Your task to perform on an android device: Open accessibility settings Image 0: 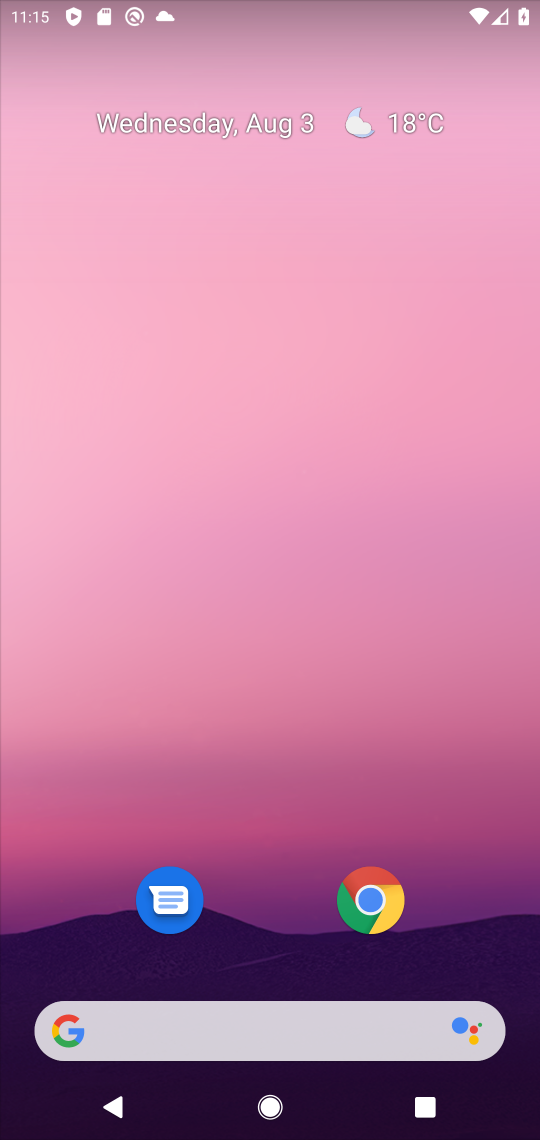
Step 0: drag from (268, 858) to (271, 127)
Your task to perform on an android device: Open accessibility settings Image 1: 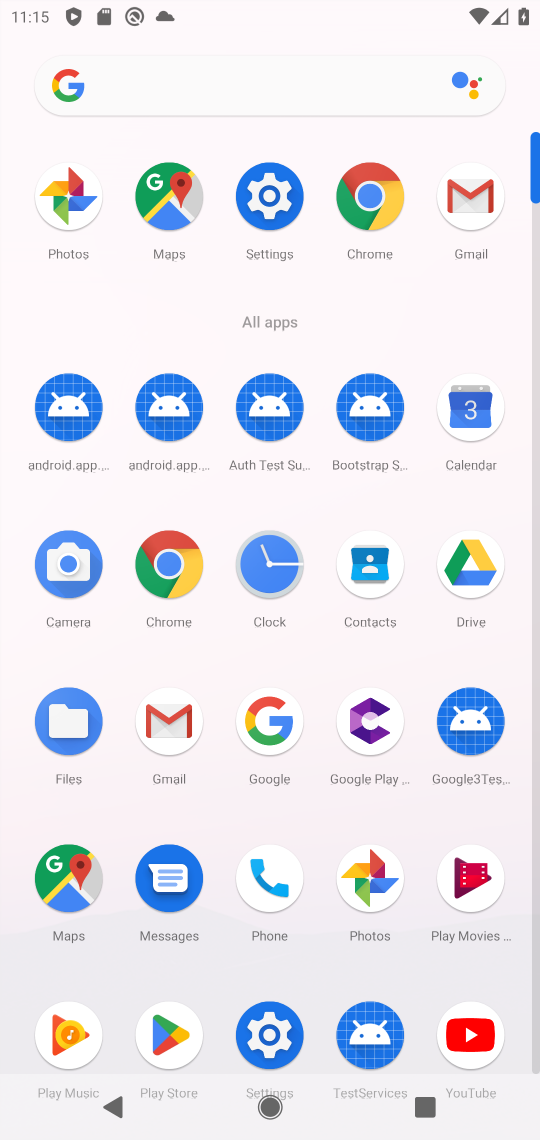
Step 1: click (268, 1043)
Your task to perform on an android device: Open accessibility settings Image 2: 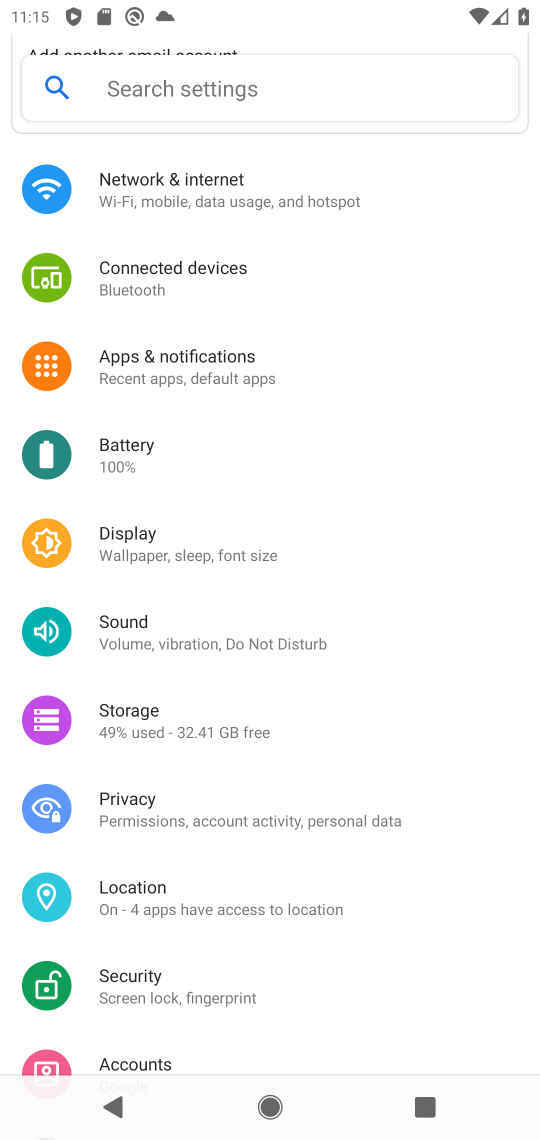
Step 2: drag from (245, 962) to (254, 437)
Your task to perform on an android device: Open accessibility settings Image 3: 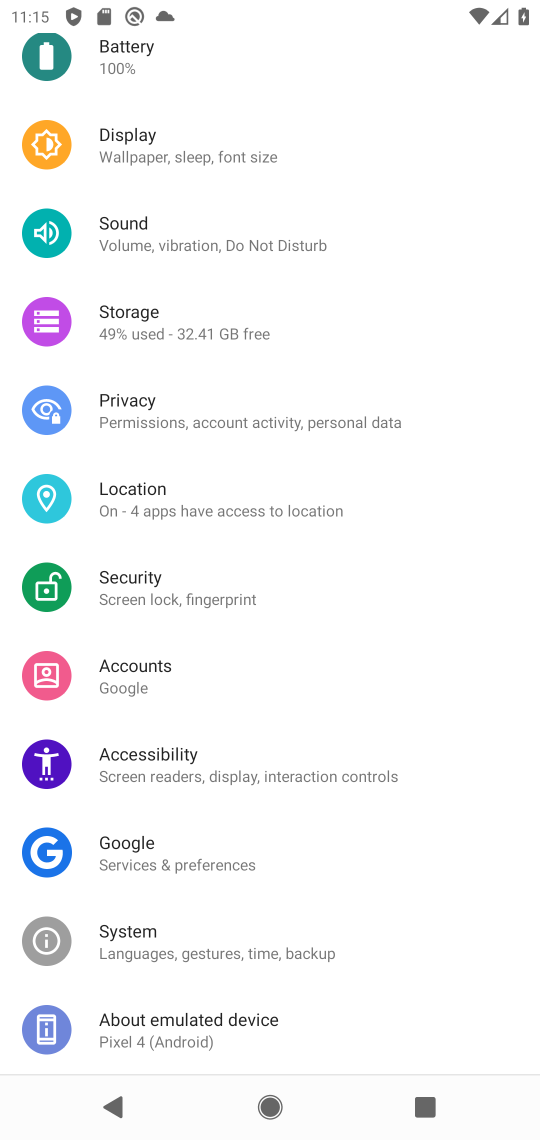
Step 3: drag from (146, 189) to (145, 458)
Your task to perform on an android device: Open accessibility settings Image 4: 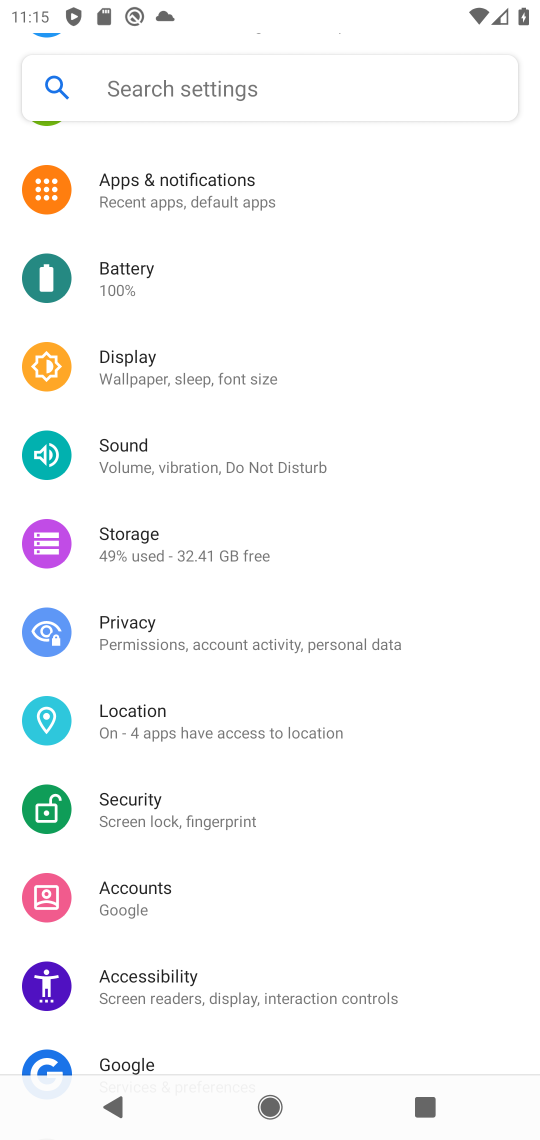
Step 4: click (177, 983)
Your task to perform on an android device: Open accessibility settings Image 5: 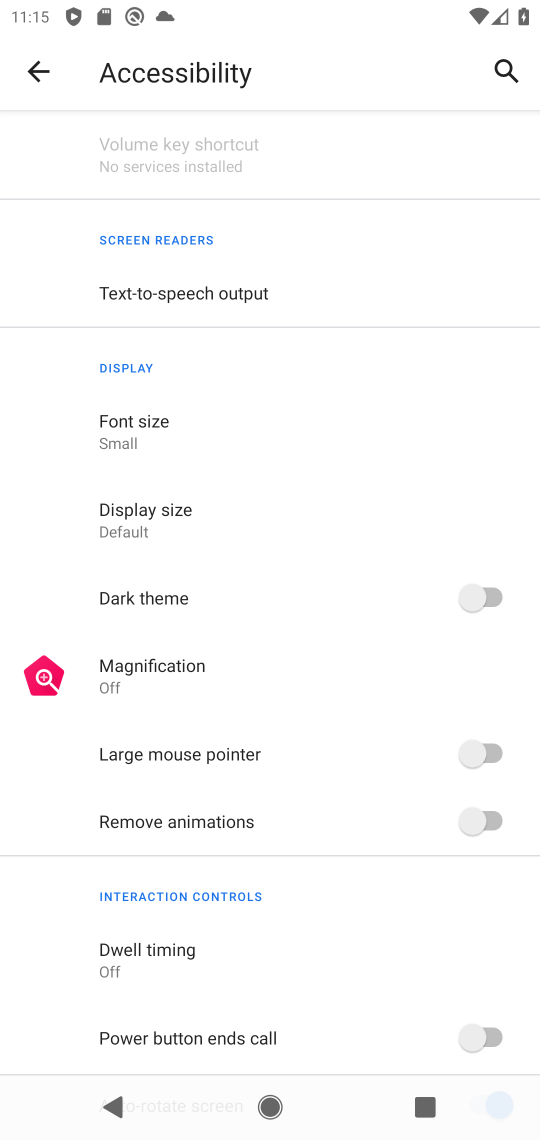
Step 5: task complete